Your task to perform on an android device: toggle notification dots Image 0: 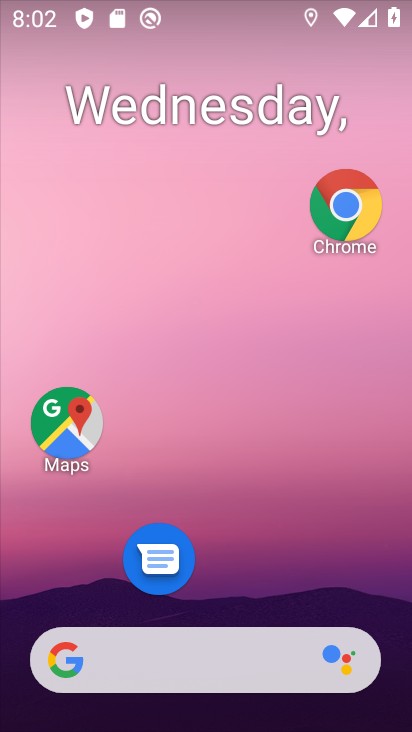
Step 0: drag from (209, 580) to (150, 0)
Your task to perform on an android device: toggle notification dots Image 1: 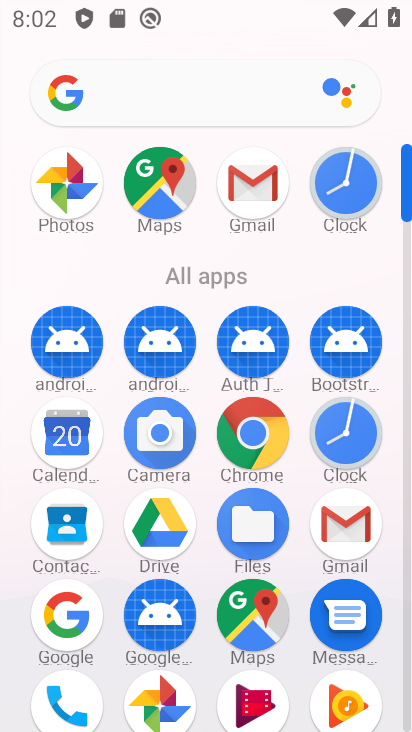
Step 1: drag from (202, 650) to (210, 186)
Your task to perform on an android device: toggle notification dots Image 2: 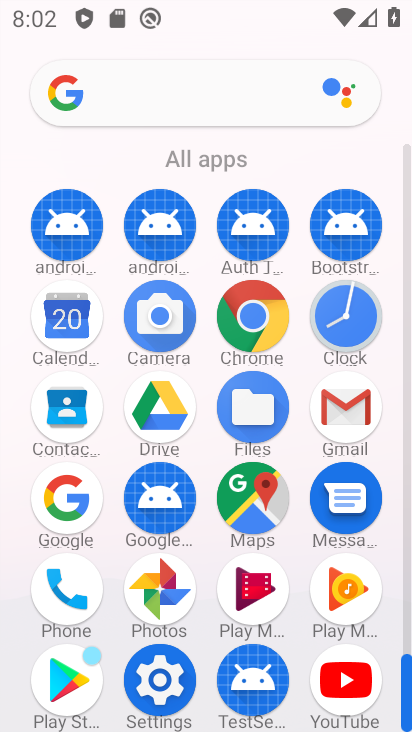
Step 2: click (160, 662)
Your task to perform on an android device: toggle notification dots Image 3: 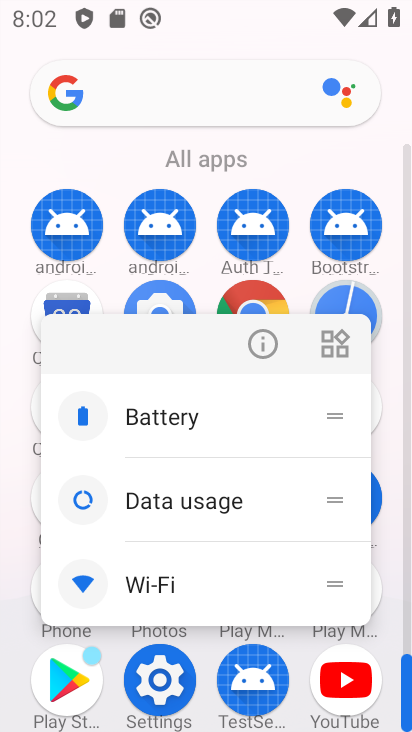
Step 3: click (262, 348)
Your task to perform on an android device: toggle notification dots Image 4: 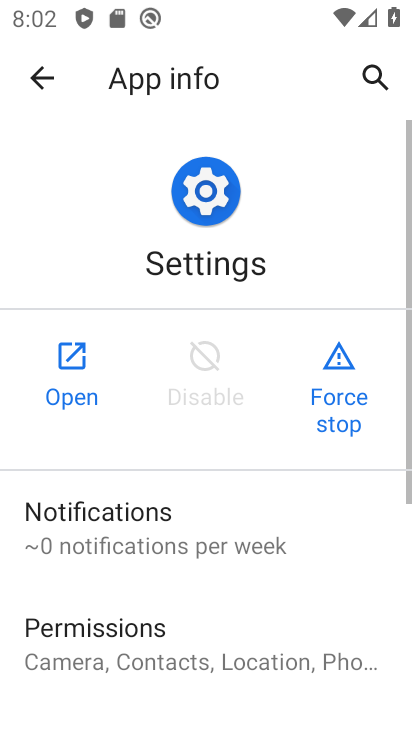
Step 4: click (77, 390)
Your task to perform on an android device: toggle notification dots Image 5: 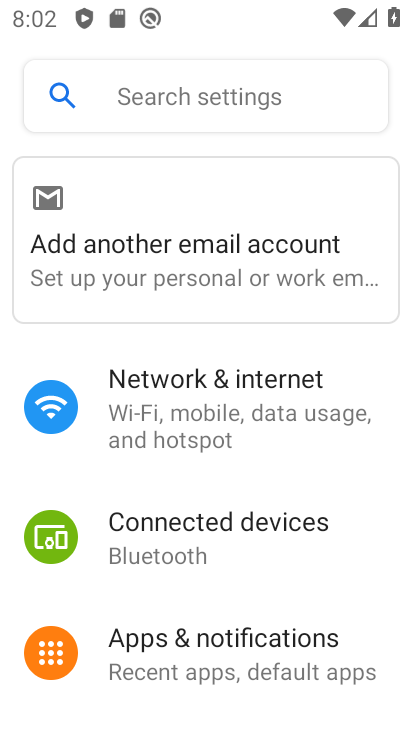
Step 5: click (195, 666)
Your task to perform on an android device: toggle notification dots Image 6: 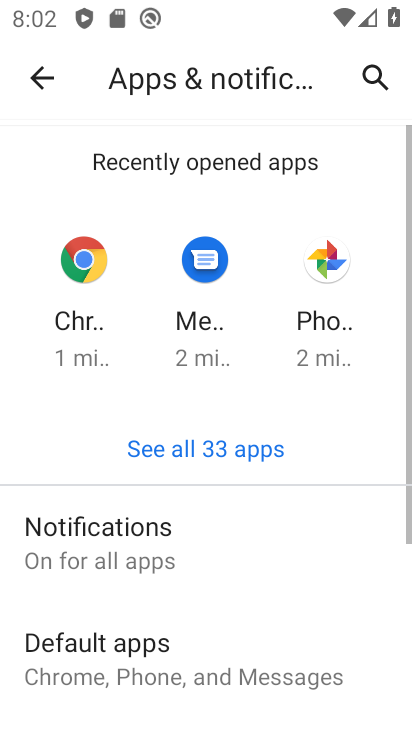
Step 6: click (177, 549)
Your task to perform on an android device: toggle notification dots Image 7: 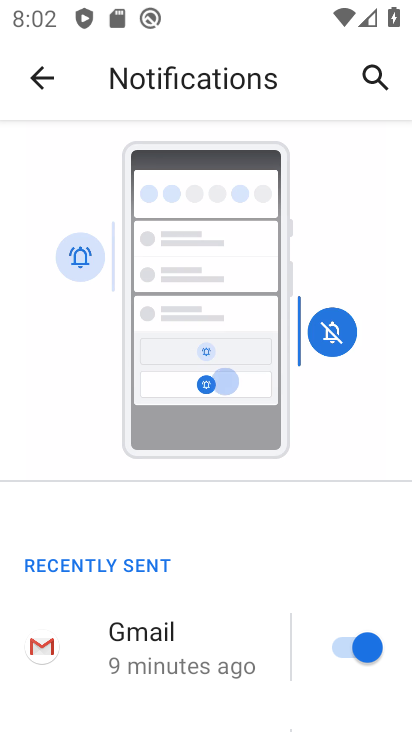
Step 7: drag from (208, 563) to (255, 82)
Your task to perform on an android device: toggle notification dots Image 8: 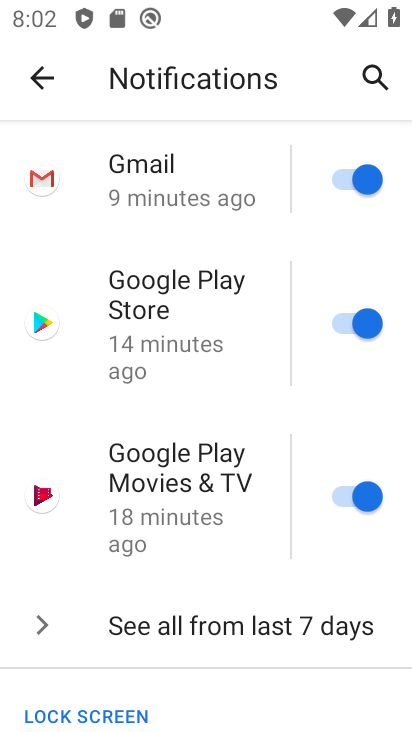
Step 8: drag from (241, 666) to (283, 133)
Your task to perform on an android device: toggle notification dots Image 9: 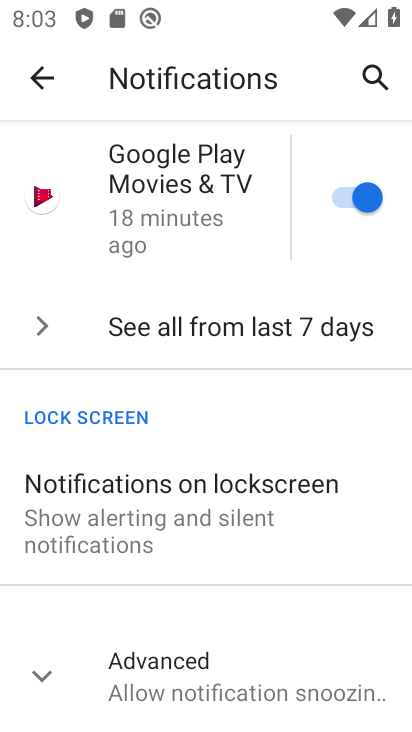
Step 9: drag from (199, 613) to (215, 203)
Your task to perform on an android device: toggle notification dots Image 10: 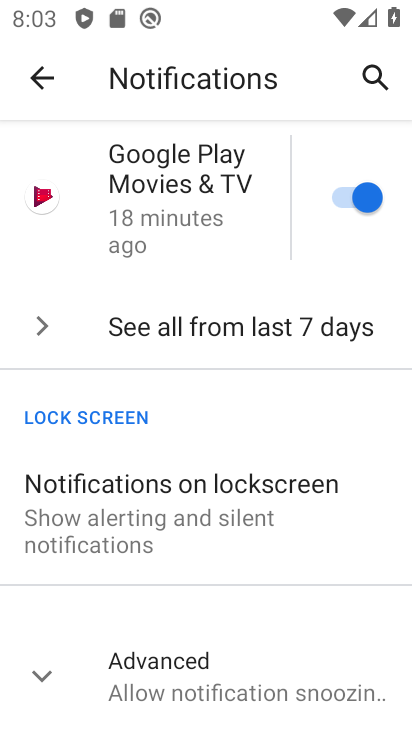
Step 10: click (162, 674)
Your task to perform on an android device: toggle notification dots Image 11: 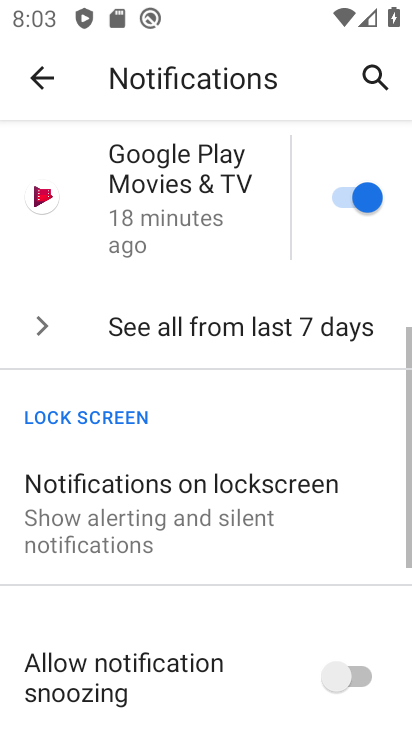
Step 11: drag from (162, 673) to (254, 102)
Your task to perform on an android device: toggle notification dots Image 12: 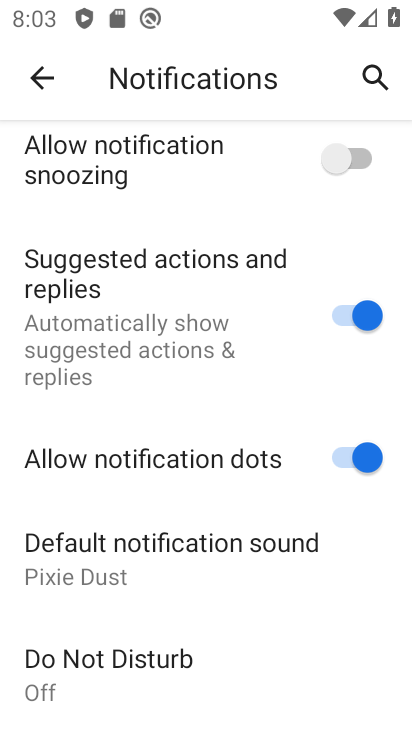
Step 12: click (325, 459)
Your task to perform on an android device: toggle notification dots Image 13: 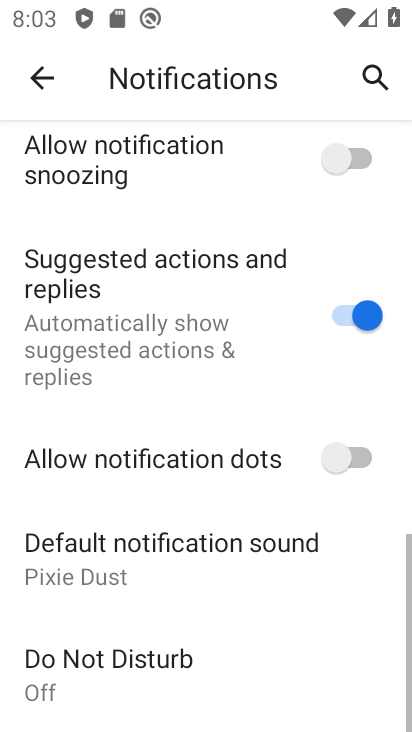
Step 13: task complete